Your task to perform on an android device: change alarm snooze length Image 0: 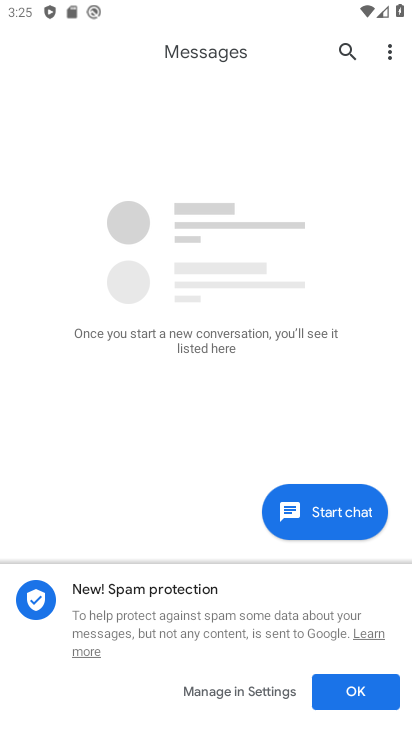
Step 0: press home button
Your task to perform on an android device: change alarm snooze length Image 1: 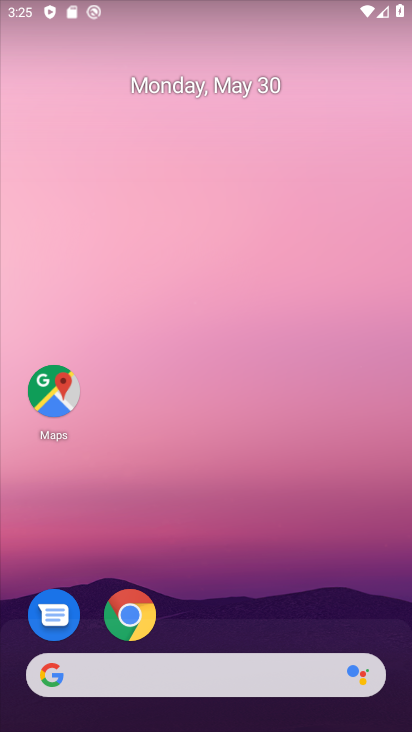
Step 1: drag from (255, 594) to (297, 72)
Your task to perform on an android device: change alarm snooze length Image 2: 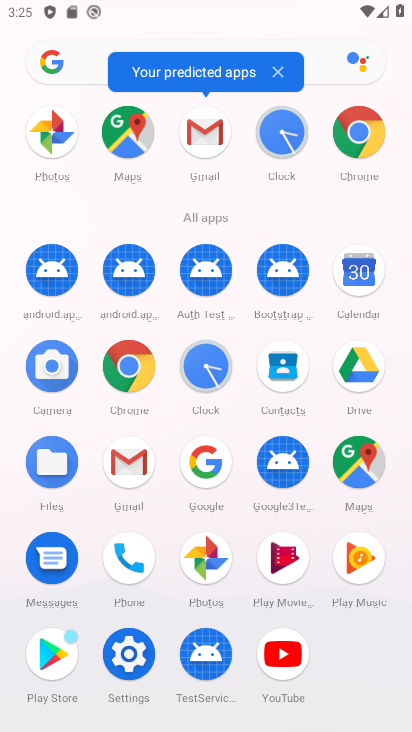
Step 2: click (283, 133)
Your task to perform on an android device: change alarm snooze length Image 3: 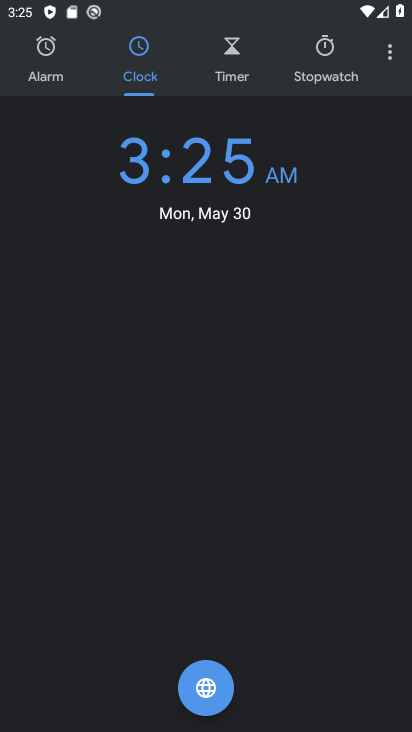
Step 3: click (392, 51)
Your task to perform on an android device: change alarm snooze length Image 4: 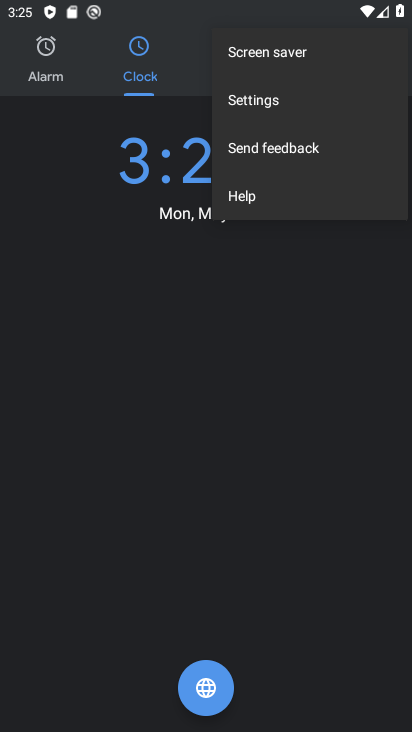
Step 4: click (275, 106)
Your task to perform on an android device: change alarm snooze length Image 5: 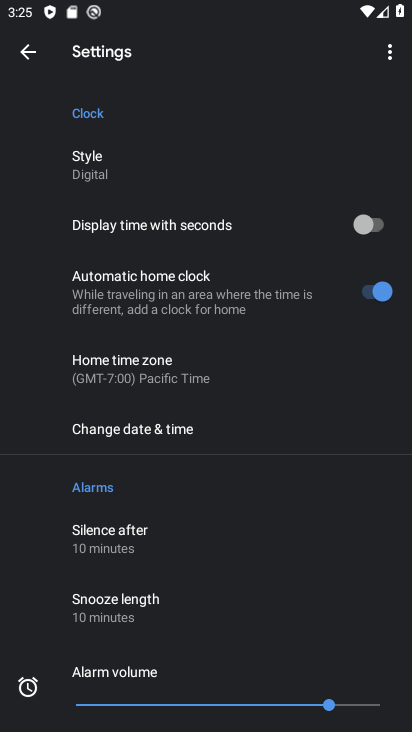
Step 5: click (148, 605)
Your task to perform on an android device: change alarm snooze length Image 6: 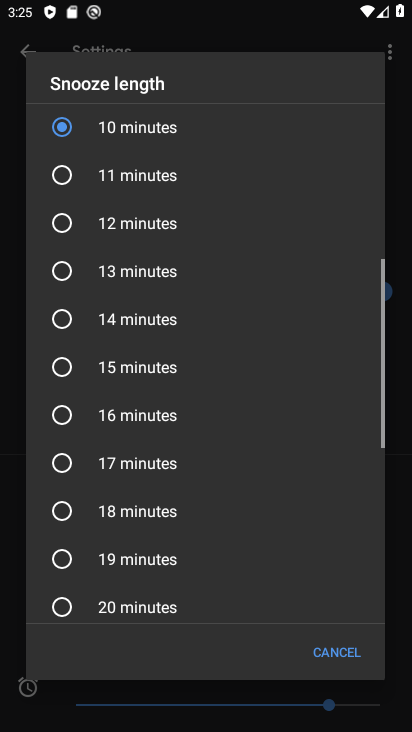
Step 6: drag from (144, 412) to (123, 179)
Your task to perform on an android device: change alarm snooze length Image 7: 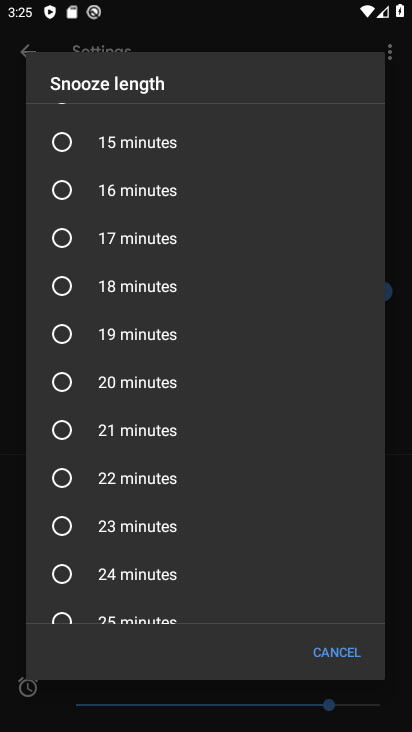
Step 7: drag from (133, 503) to (168, 379)
Your task to perform on an android device: change alarm snooze length Image 8: 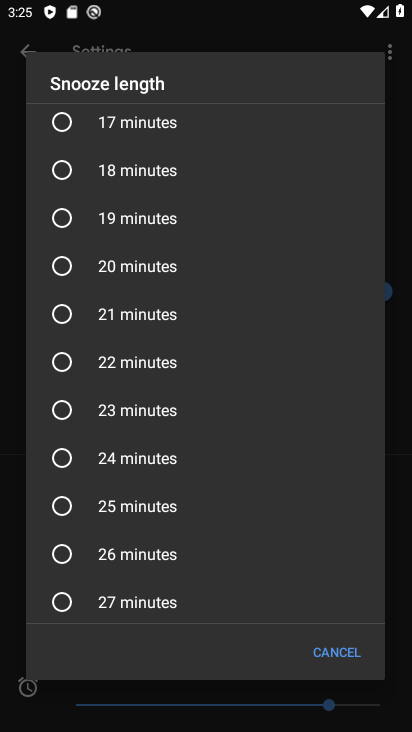
Step 8: drag from (114, 570) to (166, 252)
Your task to perform on an android device: change alarm snooze length Image 9: 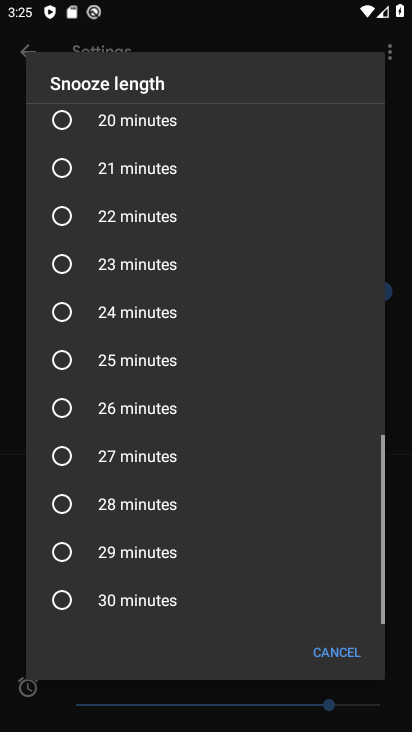
Step 9: drag from (135, 571) to (189, 204)
Your task to perform on an android device: change alarm snooze length Image 10: 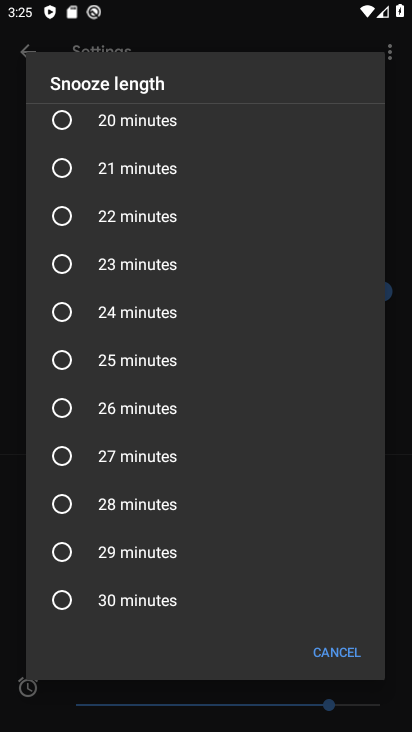
Step 10: click (68, 604)
Your task to perform on an android device: change alarm snooze length Image 11: 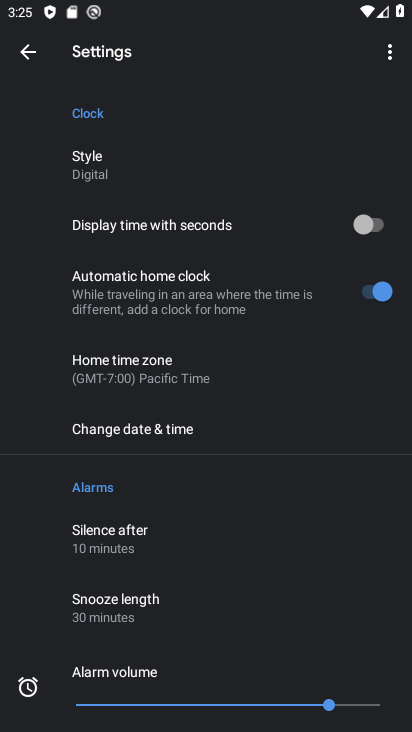
Step 11: task complete